Your task to perform on an android device: refresh tabs in the chrome app Image 0: 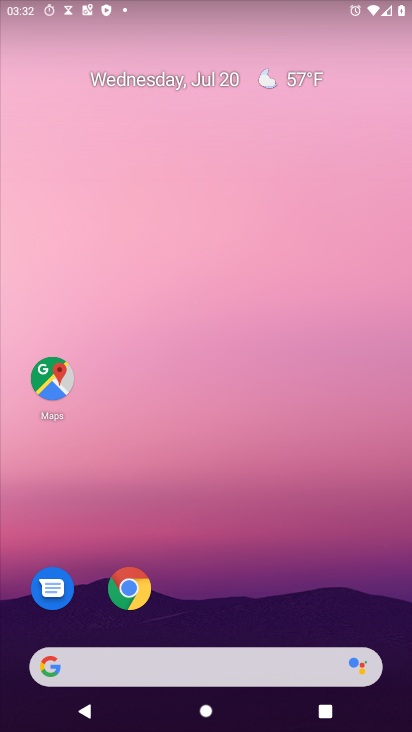
Step 0: drag from (180, 607) to (287, 9)
Your task to perform on an android device: refresh tabs in the chrome app Image 1: 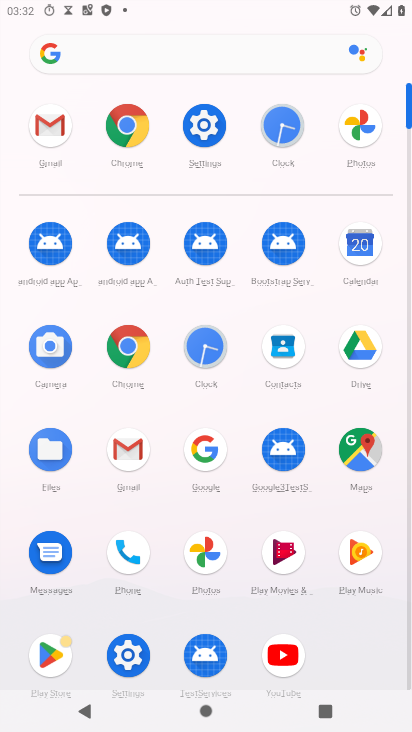
Step 1: click (142, 347)
Your task to perform on an android device: refresh tabs in the chrome app Image 2: 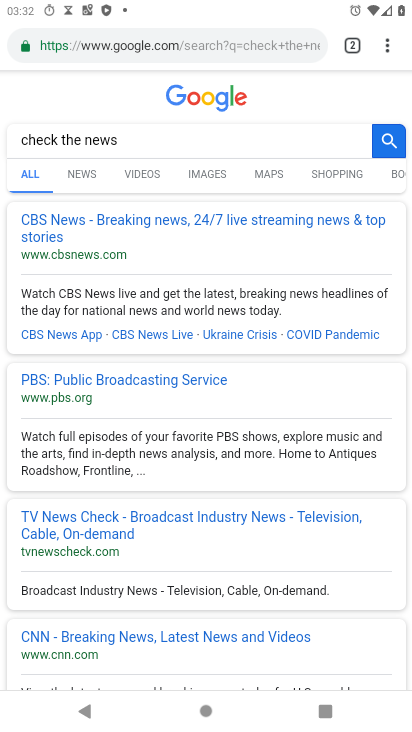
Step 2: click (392, 44)
Your task to perform on an android device: refresh tabs in the chrome app Image 3: 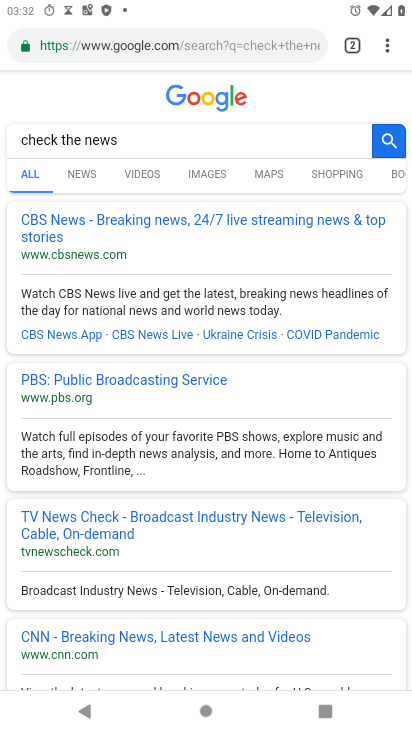
Step 3: task complete